Your task to perform on an android device: Go to Yahoo.com Image 0: 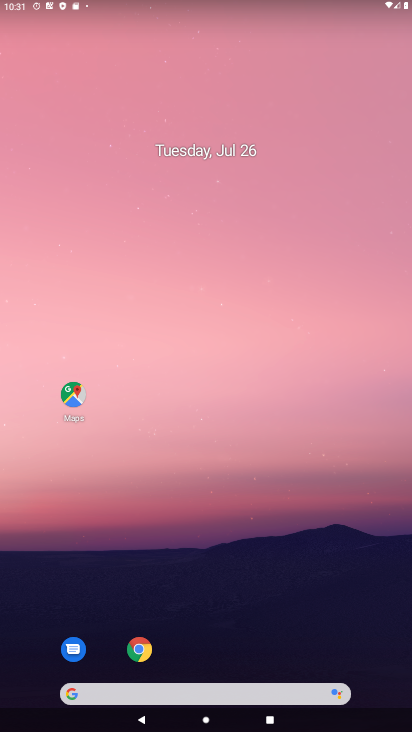
Step 0: drag from (186, 654) to (177, 163)
Your task to perform on an android device: Go to Yahoo.com Image 1: 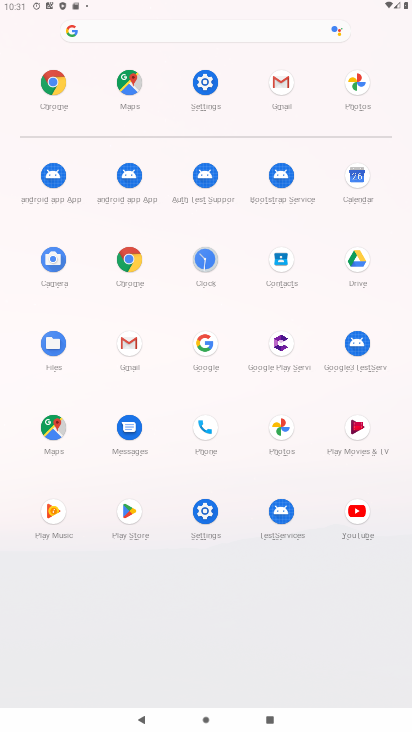
Step 1: click (154, 26)
Your task to perform on an android device: Go to Yahoo.com Image 2: 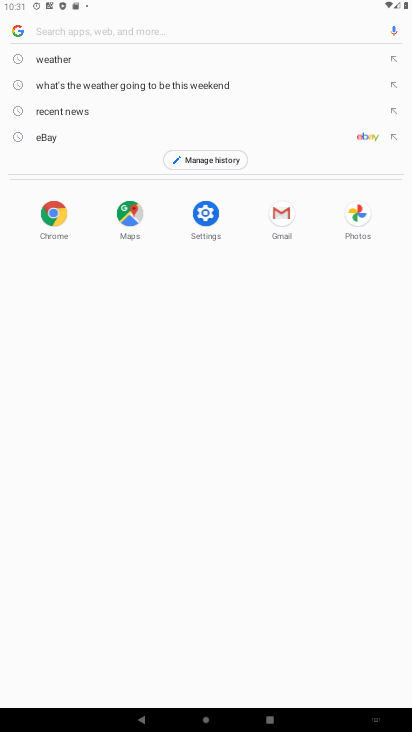
Step 2: type "Yahoo.com"
Your task to perform on an android device: Go to Yahoo.com Image 3: 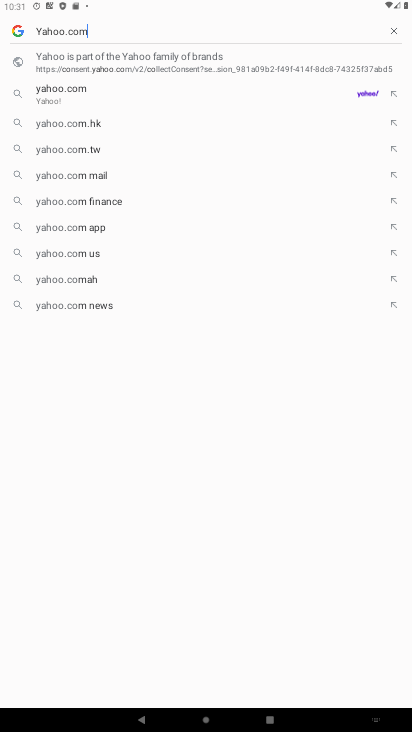
Step 3: type ""
Your task to perform on an android device: Go to Yahoo.com Image 4: 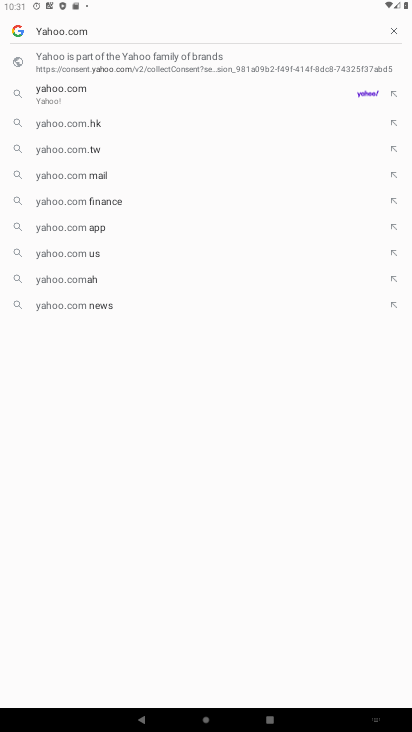
Step 4: click (101, 90)
Your task to perform on an android device: Go to Yahoo.com Image 5: 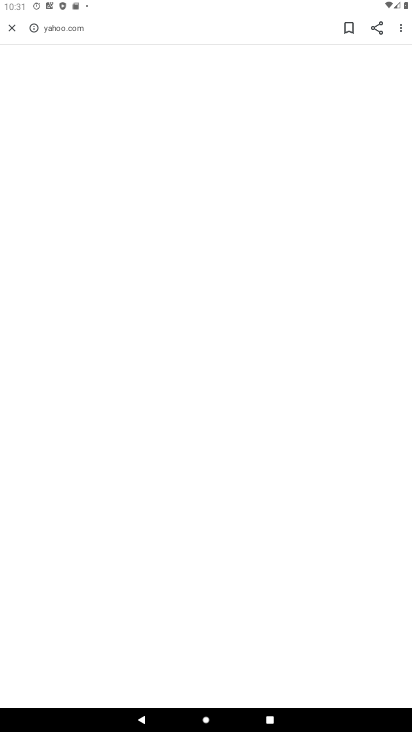
Step 5: task complete